Your task to perform on an android device: Go to settings Image 0: 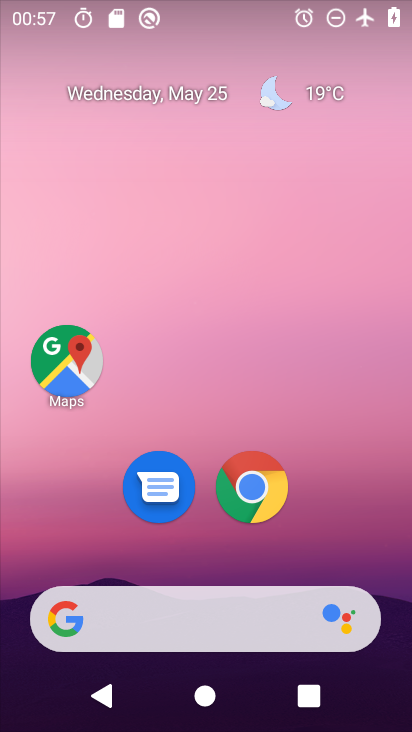
Step 0: drag from (374, 442) to (350, 12)
Your task to perform on an android device: Go to settings Image 1: 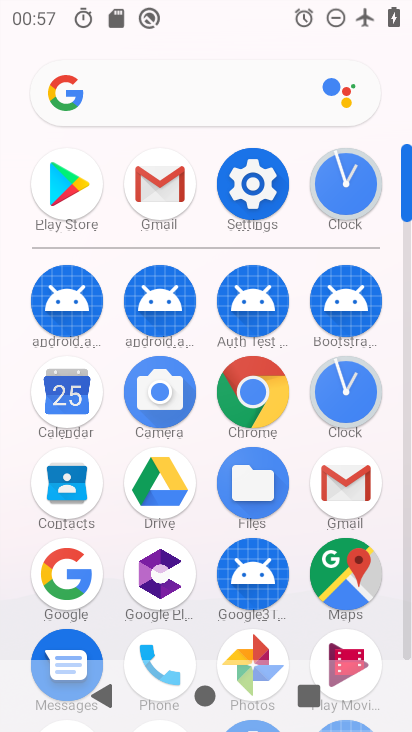
Step 1: click (252, 183)
Your task to perform on an android device: Go to settings Image 2: 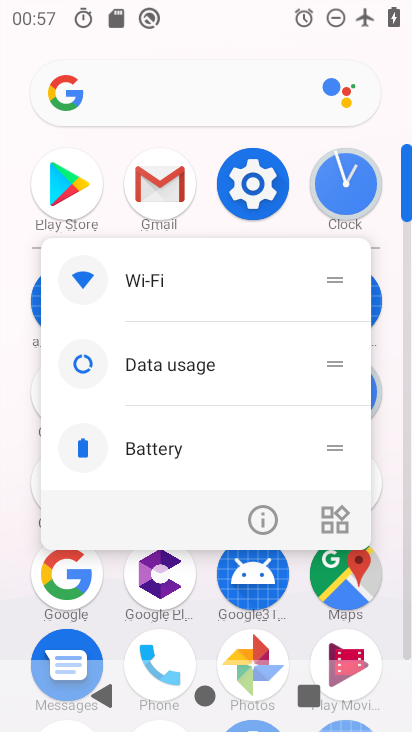
Step 2: click (252, 183)
Your task to perform on an android device: Go to settings Image 3: 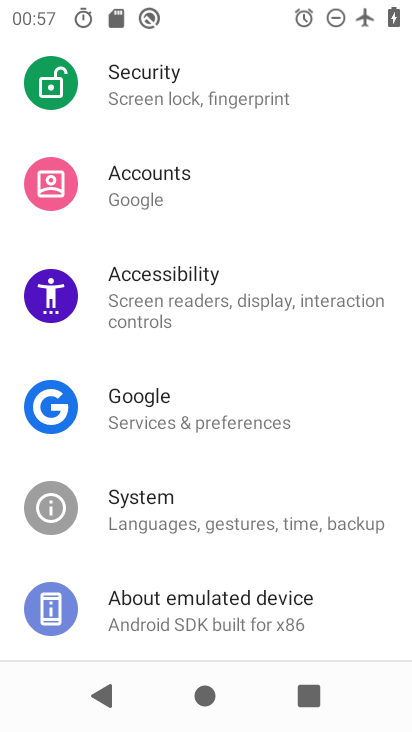
Step 3: task complete